Your task to perform on an android device: check out phone information Image 0: 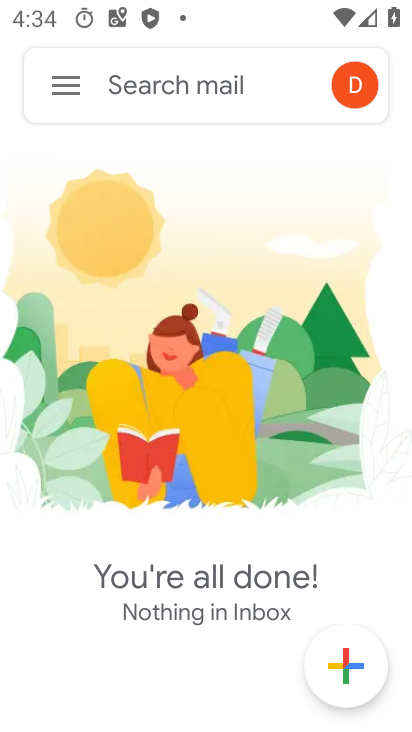
Step 0: press home button
Your task to perform on an android device: check out phone information Image 1: 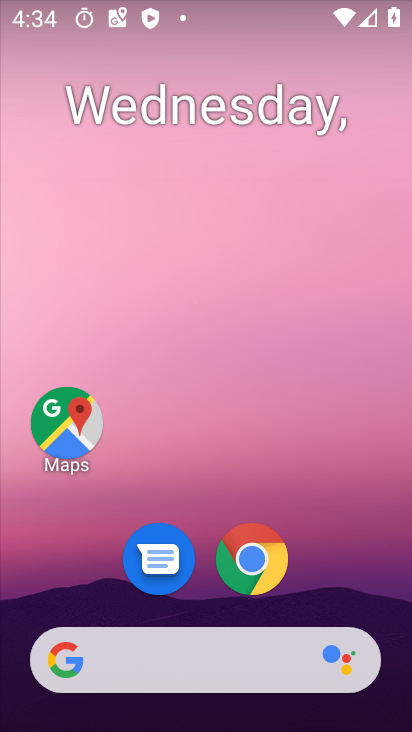
Step 1: drag from (329, 566) to (238, 97)
Your task to perform on an android device: check out phone information Image 2: 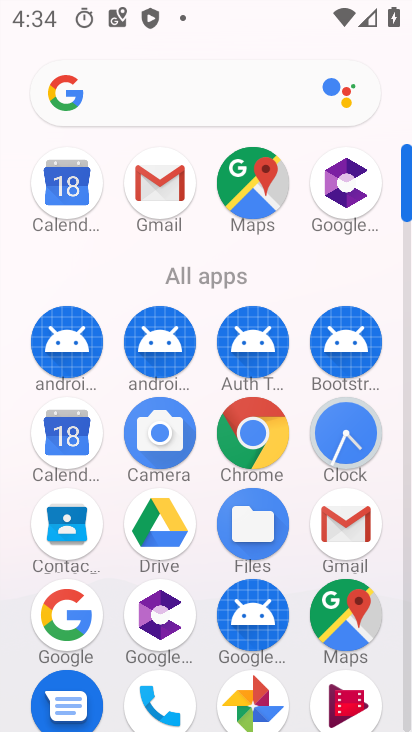
Step 2: drag from (204, 669) to (217, 227)
Your task to perform on an android device: check out phone information Image 3: 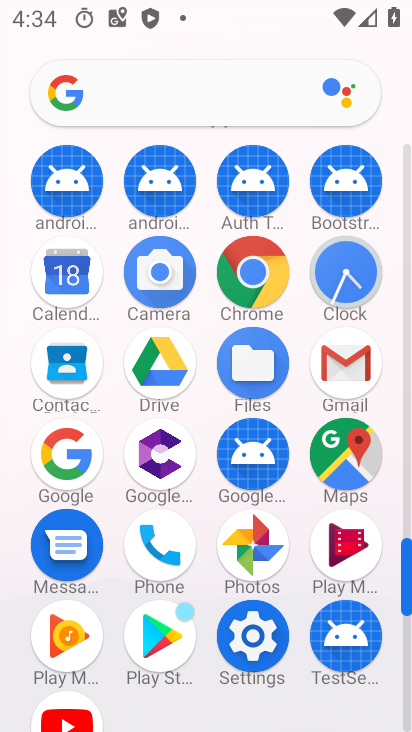
Step 3: click (258, 652)
Your task to perform on an android device: check out phone information Image 4: 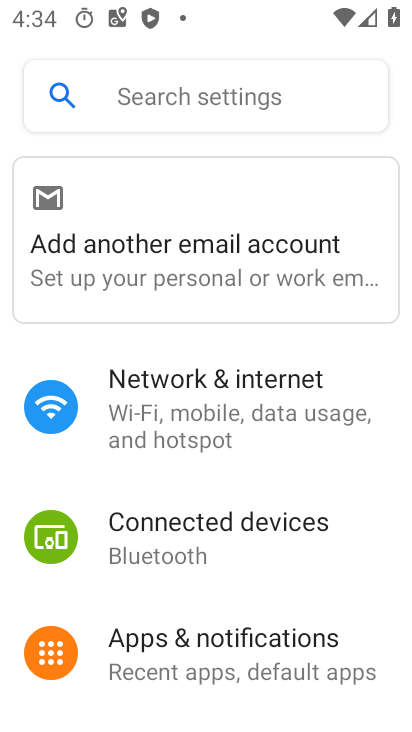
Step 4: drag from (279, 614) to (259, 283)
Your task to perform on an android device: check out phone information Image 5: 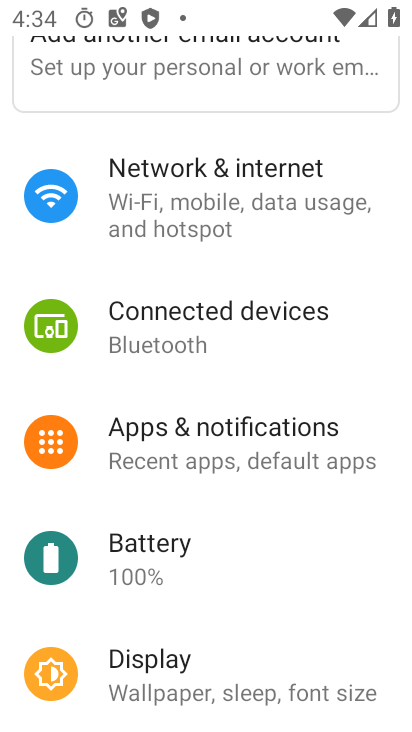
Step 5: drag from (214, 627) to (246, 92)
Your task to perform on an android device: check out phone information Image 6: 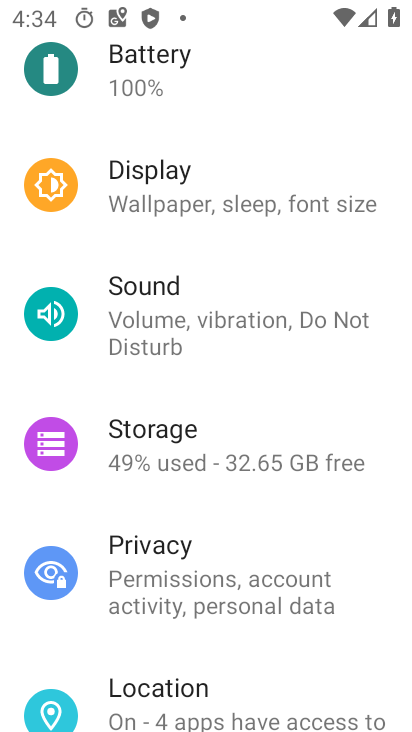
Step 6: drag from (263, 565) to (248, 70)
Your task to perform on an android device: check out phone information Image 7: 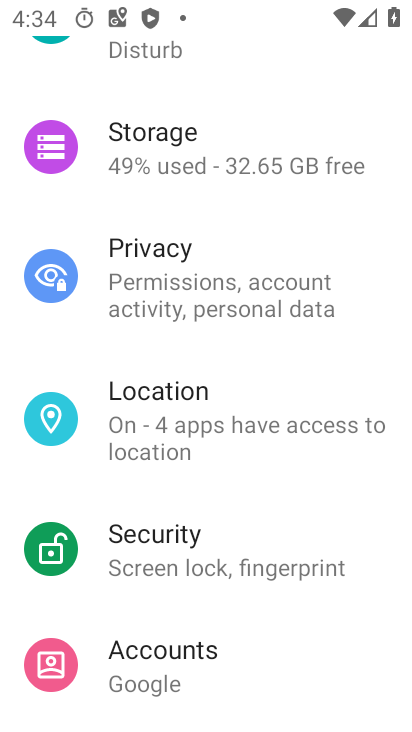
Step 7: drag from (194, 662) to (249, 83)
Your task to perform on an android device: check out phone information Image 8: 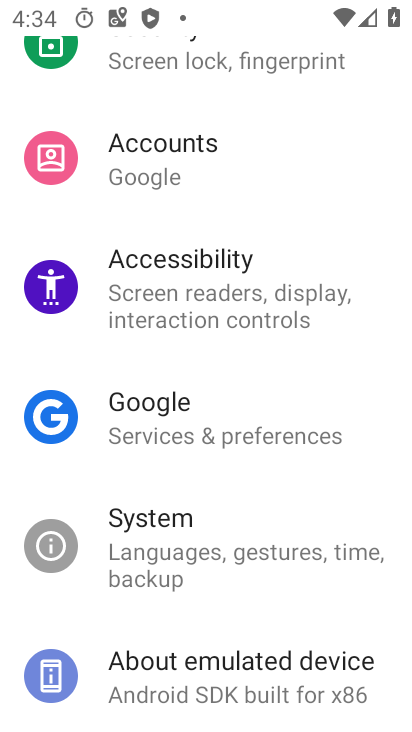
Step 8: click (241, 685)
Your task to perform on an android device: check out phone information Image 9: 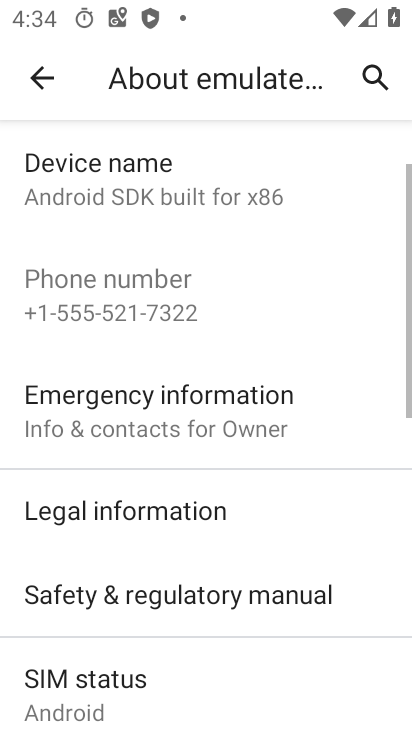
Step 9: task complete